Your task to perform on an android device: What's on my calendar today? Image 0: 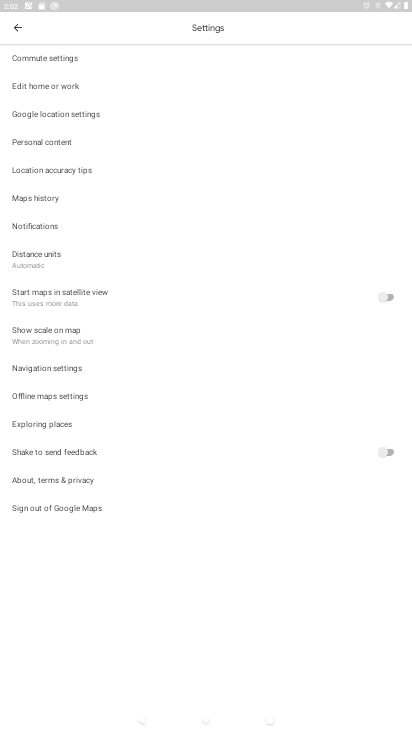
Step 0: press home button
Your task to perform on an android device: What's on my calendar today? Image 1: 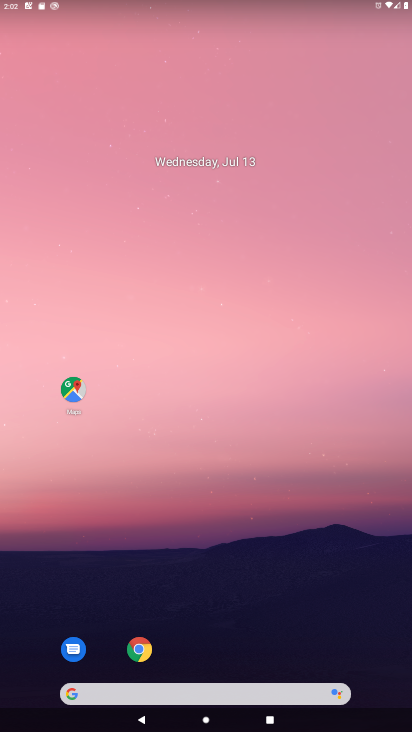
Step 1: drag from (298, 621) to (242, 291)
Your task to perform on an android device: What's on my calendar today? Image 2: 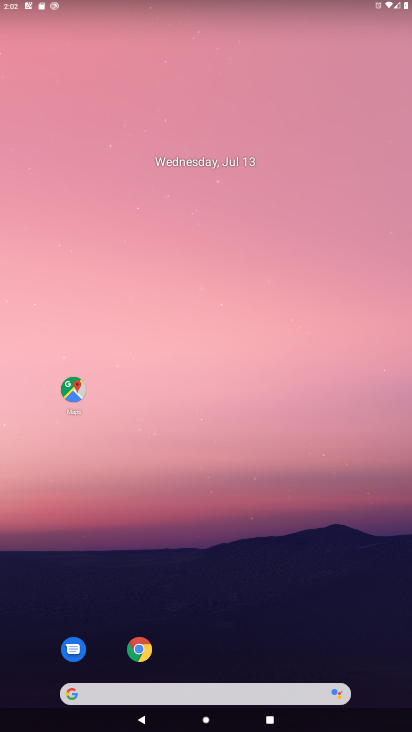
Step 2: drag from (284, 647) to (262, 237)
Your task to perform on an android device: What's on my calendar today? Image 3: 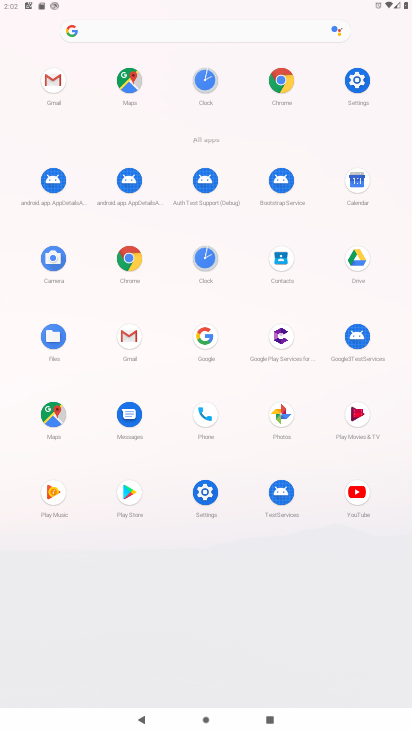
Step 3: click (350, 170)
Your task to perform on an android device: What's on my calendar today? Image 4: 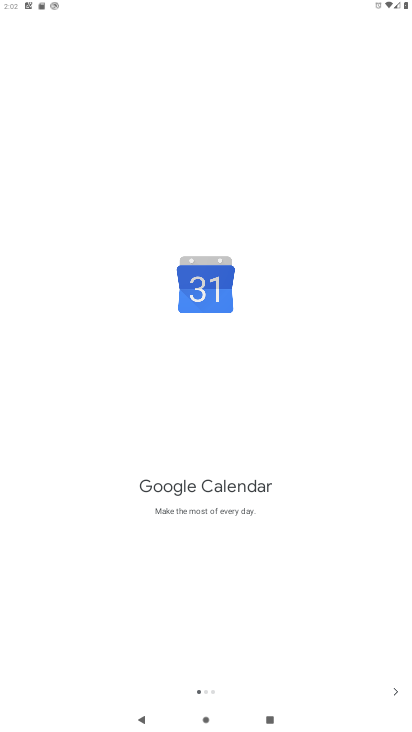
Step 4: click (397, 694)
Your task to perform on an android device: What's on my calendar today? Image 5: 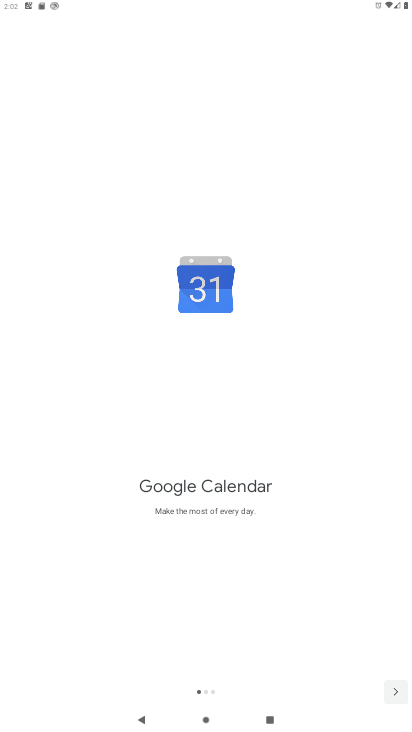
Step 5: click (397, 694)
Your task to perform on an android device: What's on my calendar today? Image 6: 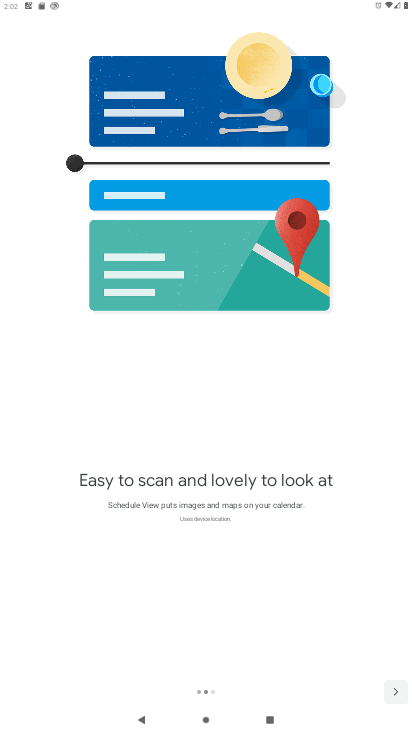
Step 6: click (397, 694)
Your task to perform on an android device: What's on my calendar today? Image 7: 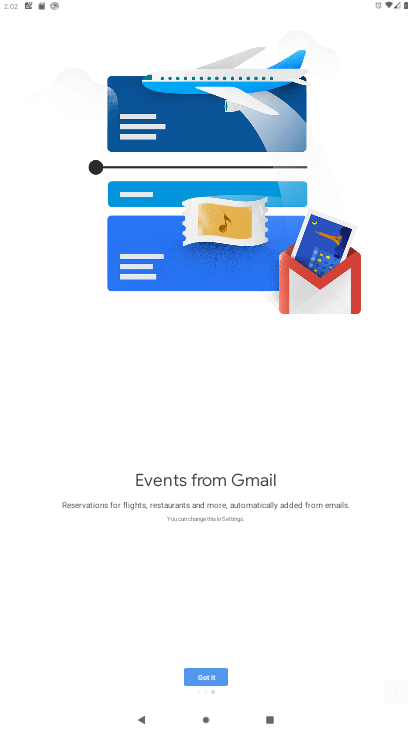
Step 7: click (397, 694)
Your task to perform on an android device: What's on my calendar today? Image 8: 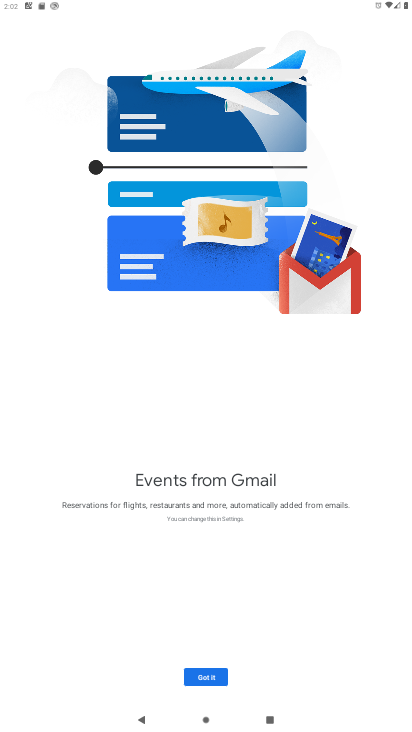
Step 8: click (397, 694)
Your task to perform on an android device: What's on my calendar today? Image 9: 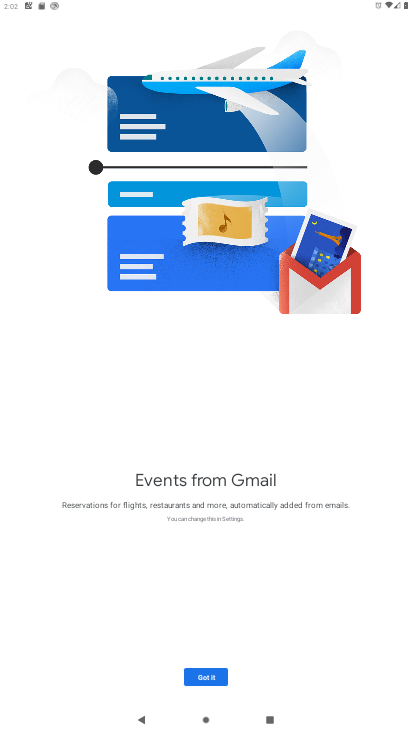
Step 9: click (226, 674)
Your task to perform on an android device: What's on my calendar today? Image 10: 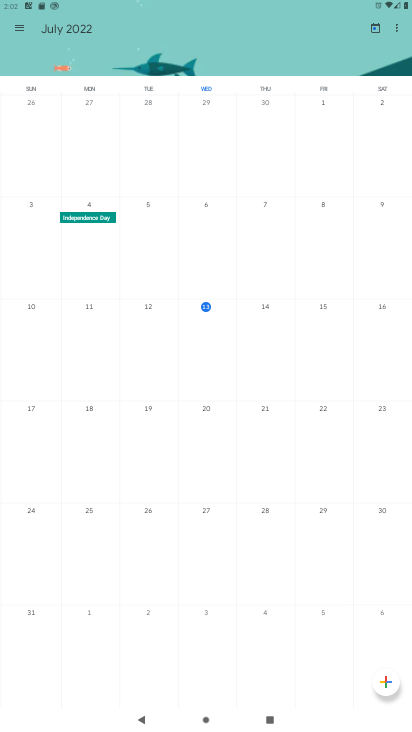
Step 10: click (224, 369)
Your task to perform on an android device: What's on my calendar today? Image 11: 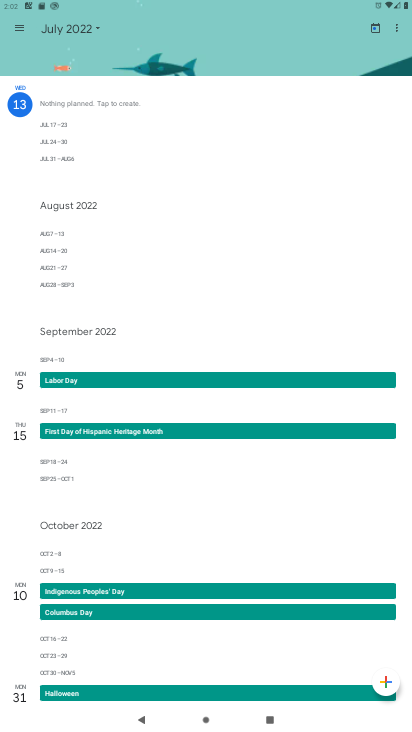
Step 11: task complete